Your task to perform on an android device: empty trash in google photos Image 0: 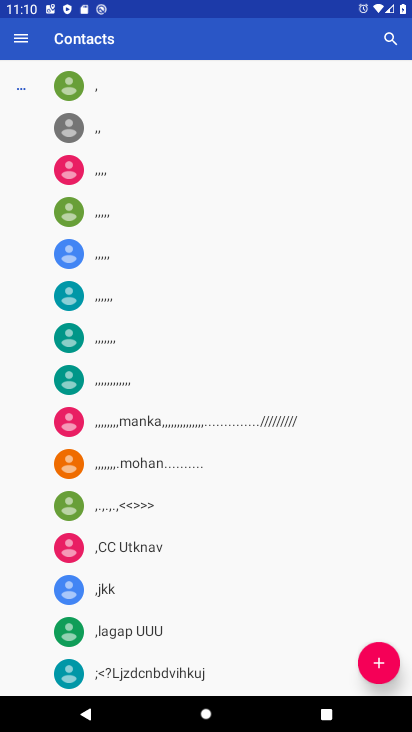
Step 0: press back button
Your task to perform on an android device: empty trash in google photos Image 1: 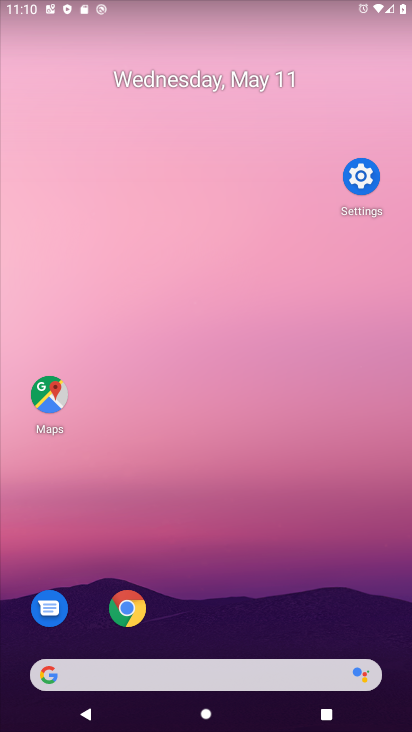
Step 1: drag from (362, 631) to (196, 89)
Your task to perform on an android device: empty trash in google photos Image 2: 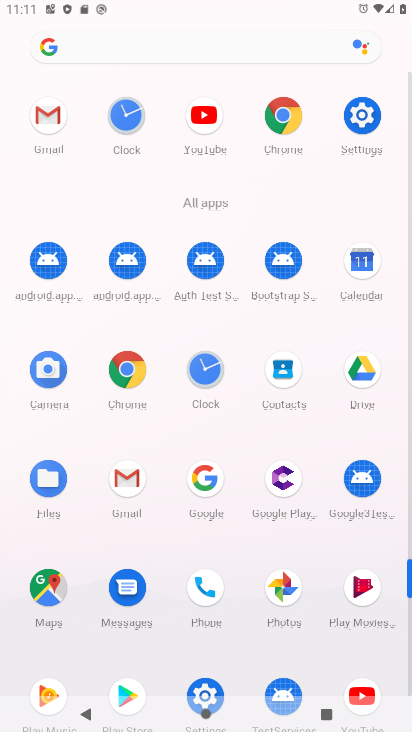
Step 2: click (288, 580)
Your task to perform on an android device: empty trash in google photos Image 3: 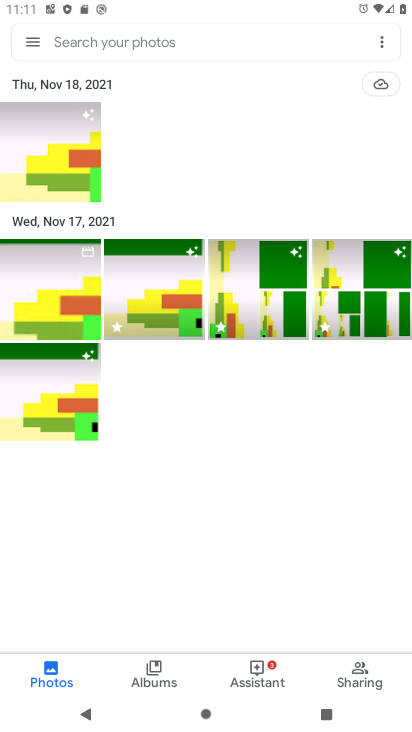
Step 3: click (49, 73)
Your task to perform on an android device: empty trash in google photos Image 4: 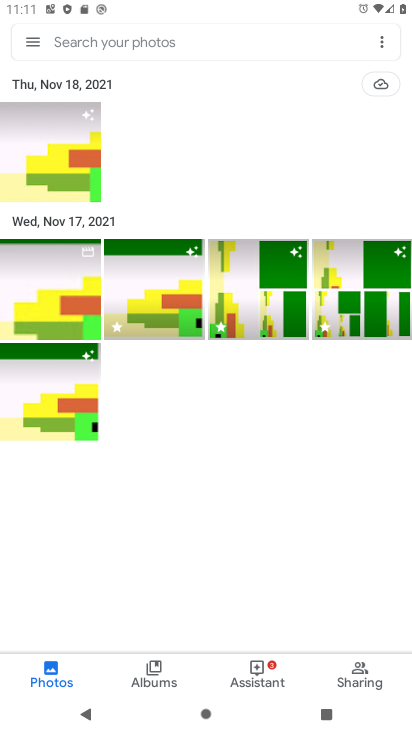
Step 4: click (31, 44)
Your task to perform on an android device: empty trash in google photos Image 5: 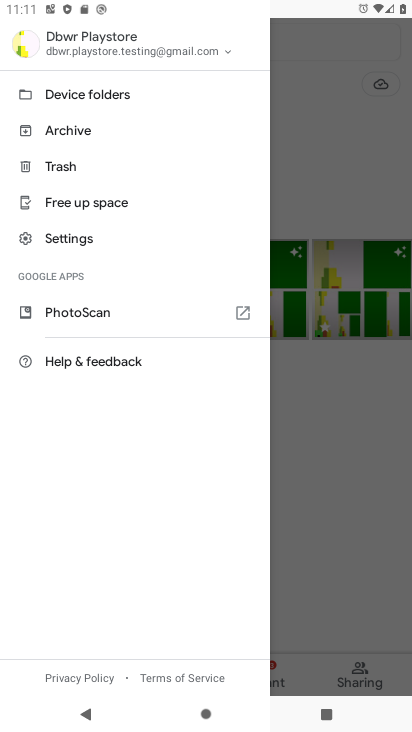
Step 5: click (91, 197)
Your task to perform on an android device: empty trash in google photos Image 6: 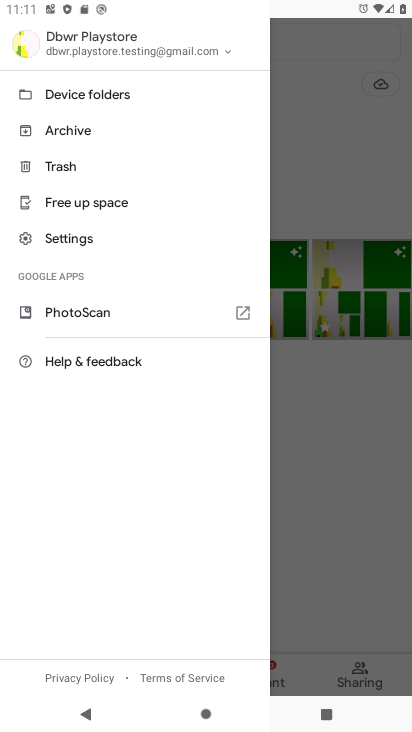
Step 6: click (45, 162)
Your task to perform on an android device: empty trash in google photos Image 7: 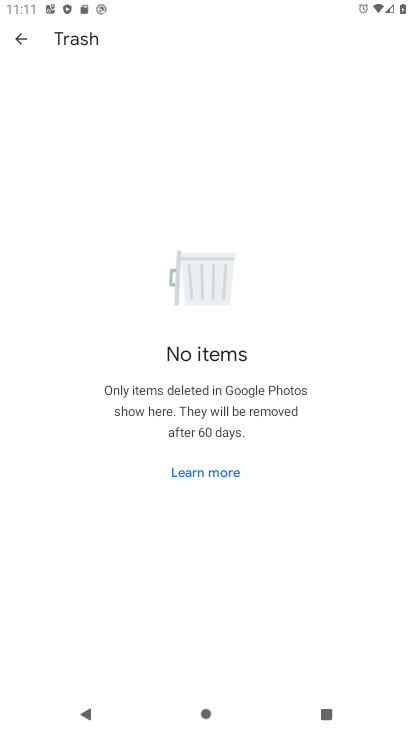
Step 7: task complete